Your task to perform on an android device: Open Amazon Image 0: 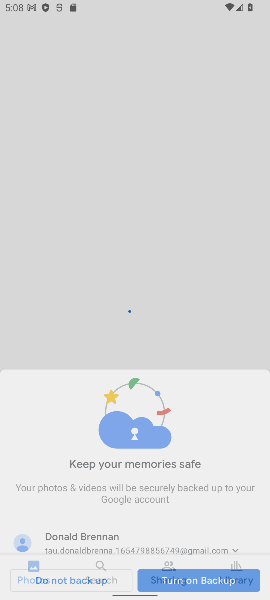
Step 0: press home button
Your task to perform on an android device: Open Amazon Image 1: 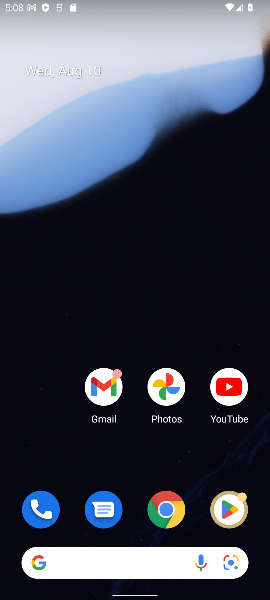
Step 1: drag from (137, 455) to (183, 11)
Your task to perform on an android device: Open Amazon Image 2: 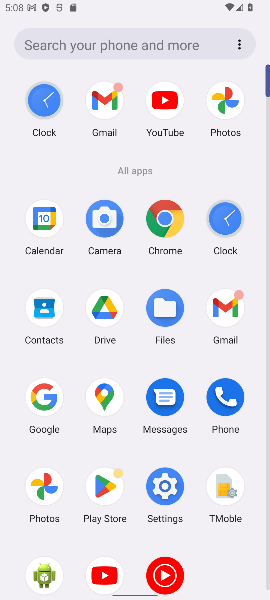
Step 2: click (158, 220)
Your task to perform on an android device: Open Amazon Image 3: 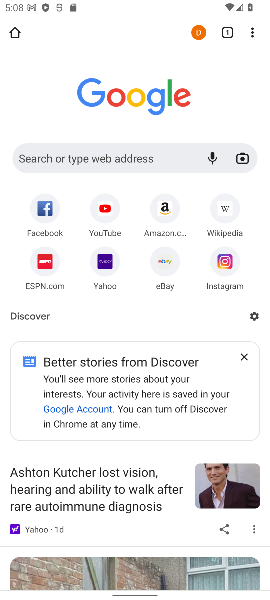
Step 3: click (167, 213)
Your task to perform on an android device: Open Amazon Image 4: 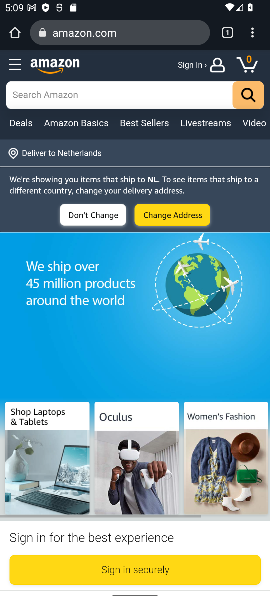
Step 4: task complete